Your task to perform on an android device: Show me recent news Image 0: 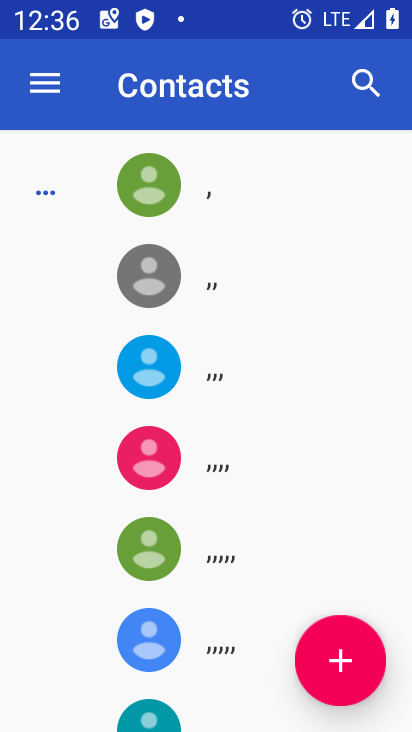
Step 0: press home button
Your task to perform on an android device: Show me recent news Image 1: 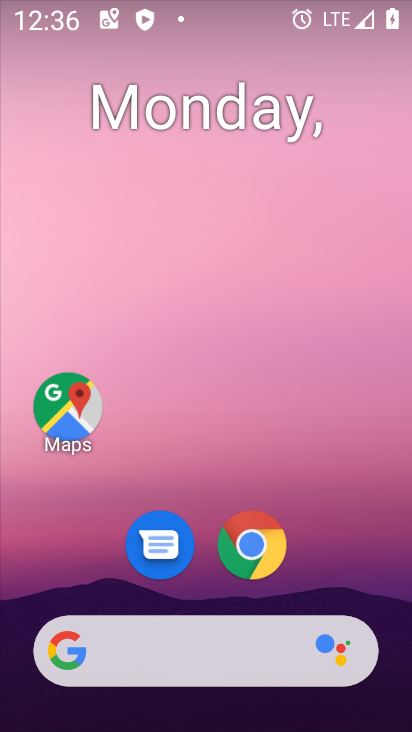
Step 1: drag from (4, 278) to (411, 426)
Your task to perform on an android device: Show me recent news Image 2: 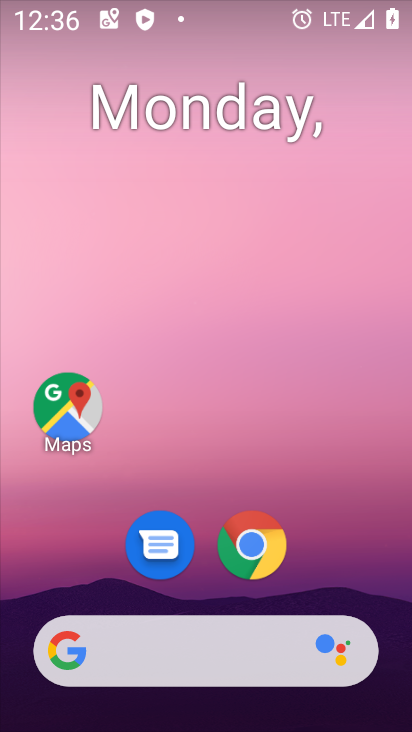
Step 2: click (142, 347)
Your task to perform on an android device: Show me recent news Image 3: 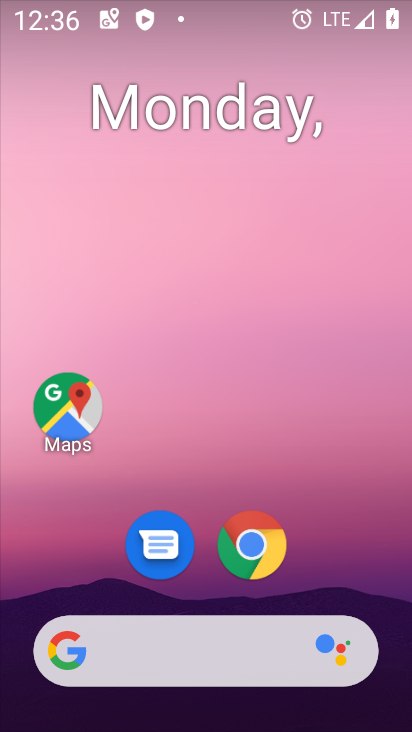
Step 3: task complete